Your task to perform on an android device: Open eBay Image 0: 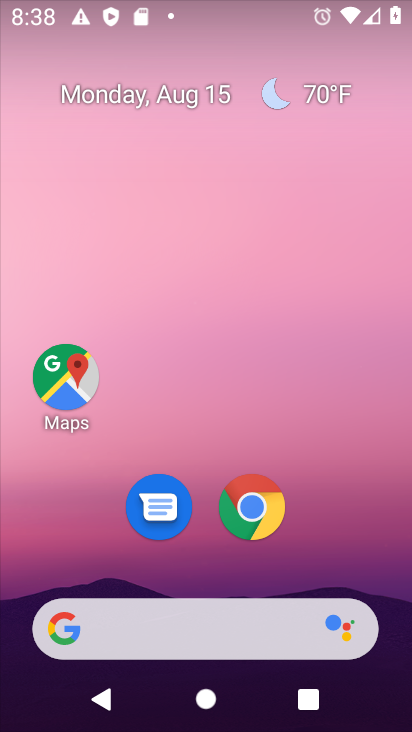
Step 0: drag from (210, 639) to (282, 102)
Your task to perform on an android device: Open eBay Image 1: 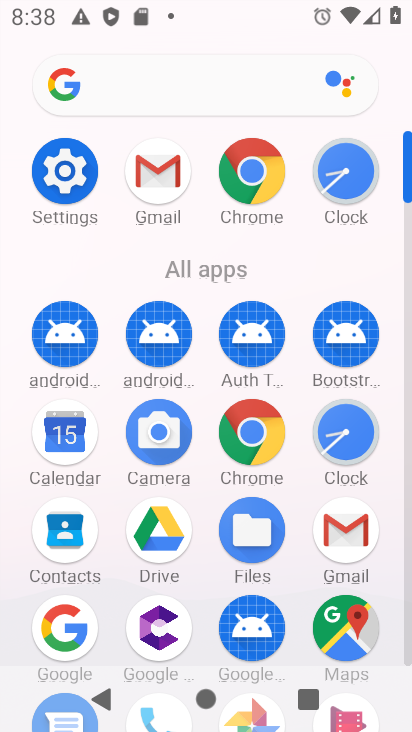
Step 1: click (255, 178)
Your task to perform on an android device: Open eBay Image 2: 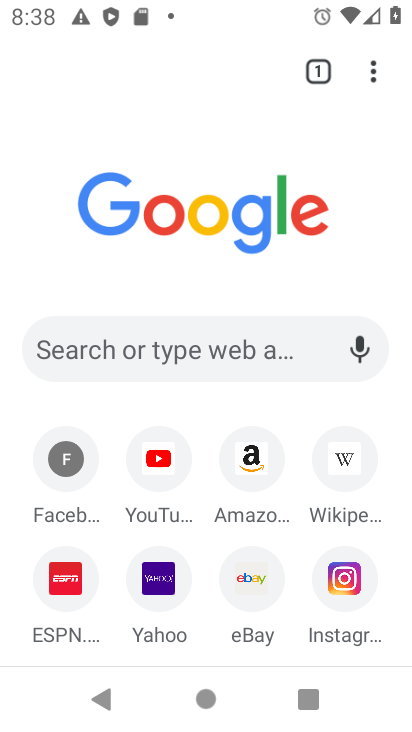
Step 2: click (233, 603)
Your task to perform on an android device: Open eBay Image 3: 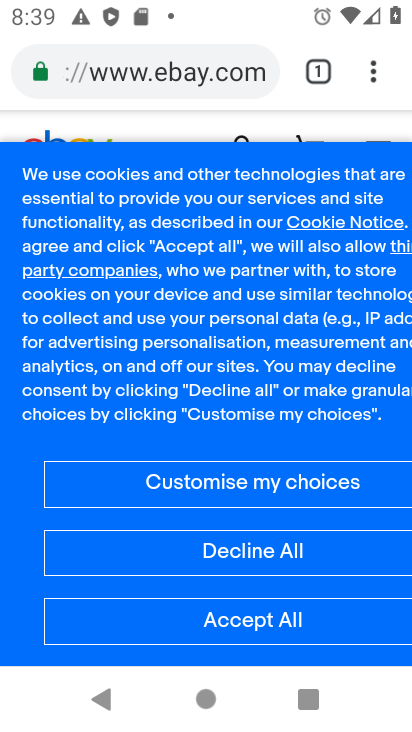
Step 3: task complete